Your task to perform on an android device: Go to Android settings Image 0: 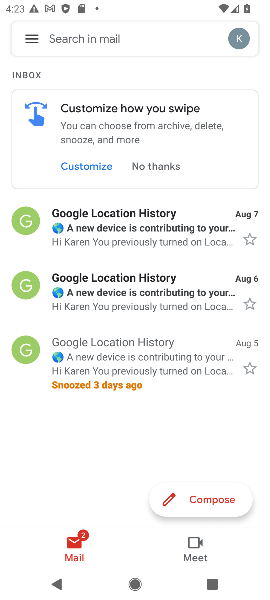
Step 0: press home button
Your task to perform on an android device: Go to Android settings Image 1: 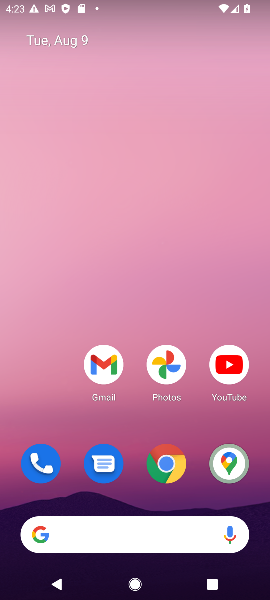
Step 1: drag from (120, 522) to (145, 31)
Your task to perform on an android device: Go to Android settings Image 2: 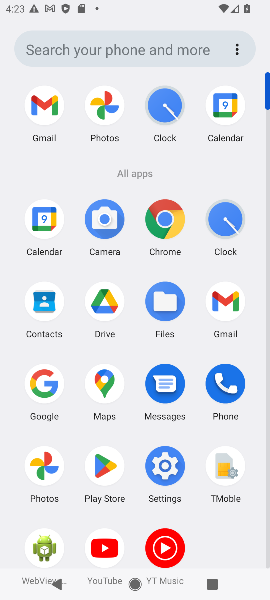
Step 2: click (160, 470)
Your task to perform on an android device: Go to Android settings Image 3: 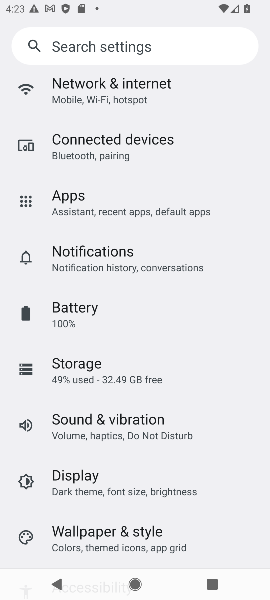
Step 3: task complete